Your task to perform on an android device: What's on my calendar tomorrow? Image 0: 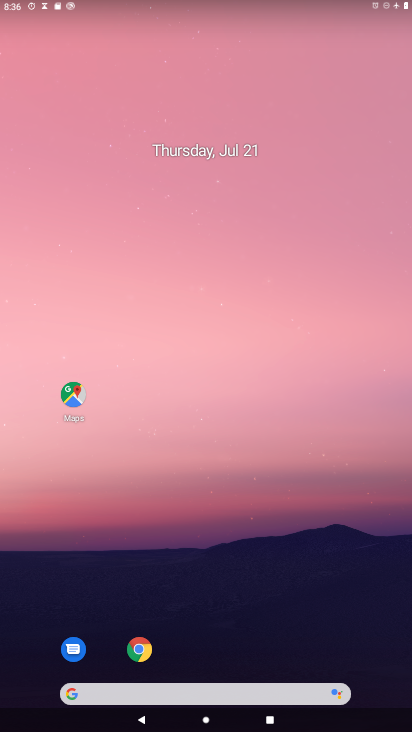
Step 0: drag from (375, 671) to (220, 10)
Your task to perform on an android device: What's on my calendar tomorrow? Image 1: 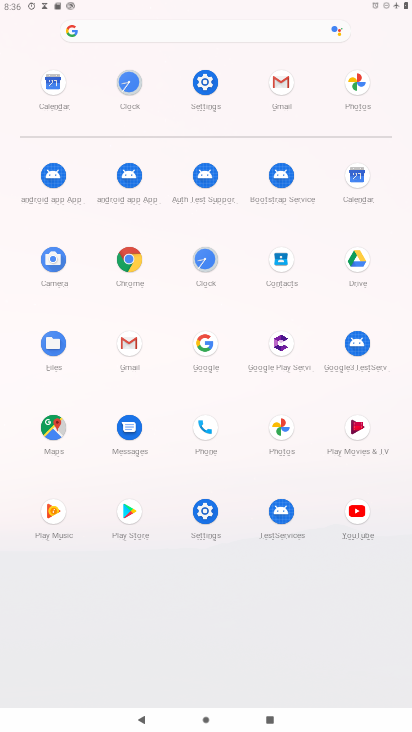
Step 1: click (345, 176)
Your task to perform on an android device: What's on my calendar tomorrow? Image 2: 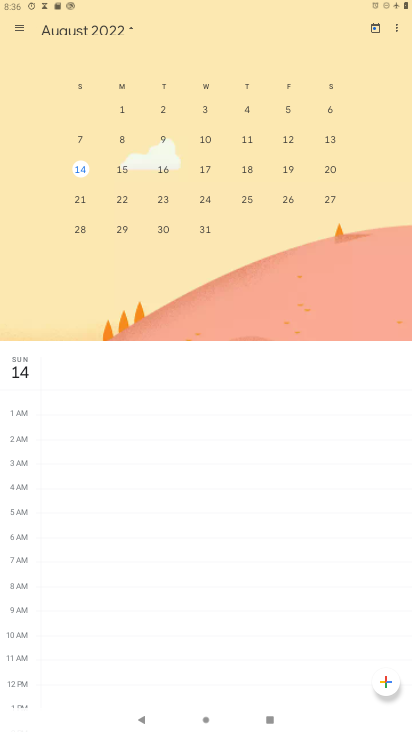
Step 2: task complete